Your task to perform on an android device: check storage Image 0: 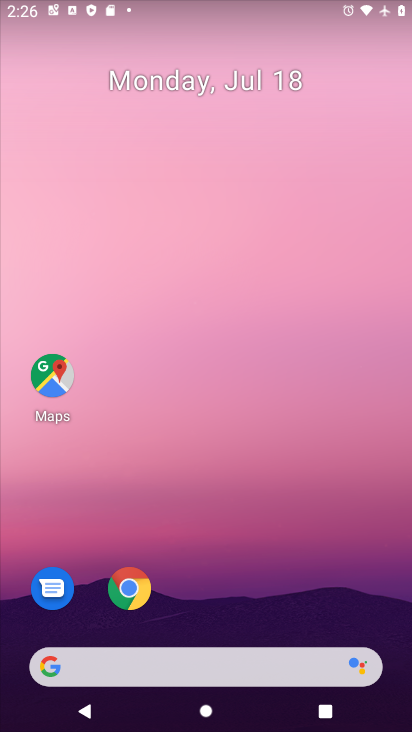
Step 0: drag from (288, 694) to (298, 221)
Your task to perform on an android device: check storage Image 1: 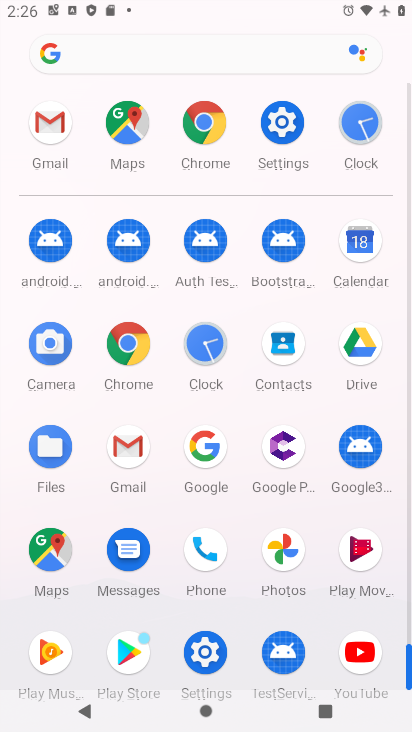
Step 1: click (287, 135)
Your task to perform on an android device: check storage Image 2: 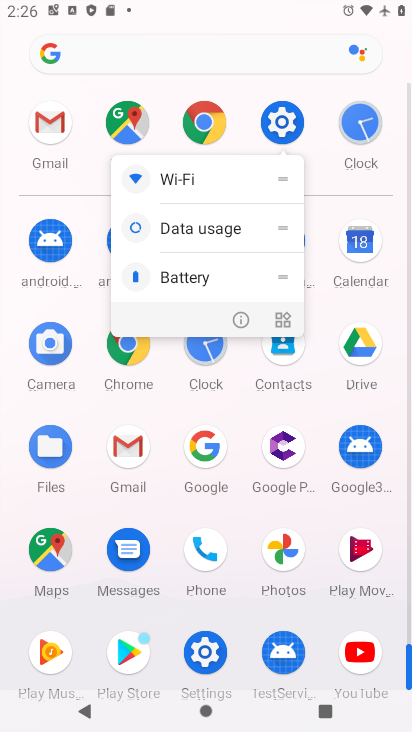
Step 2: click (297, 124)
Your task to perform on an android device: check storage Image 3: 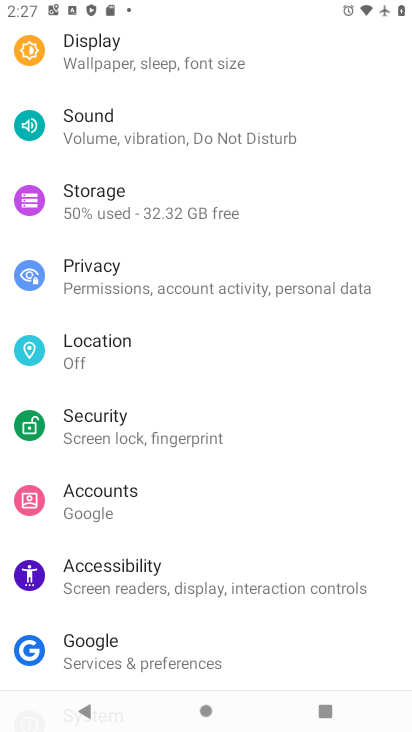
Step 3: drag from (155, 380) to (163, 597)
Your task to perform on an android device: check storage Image 4: 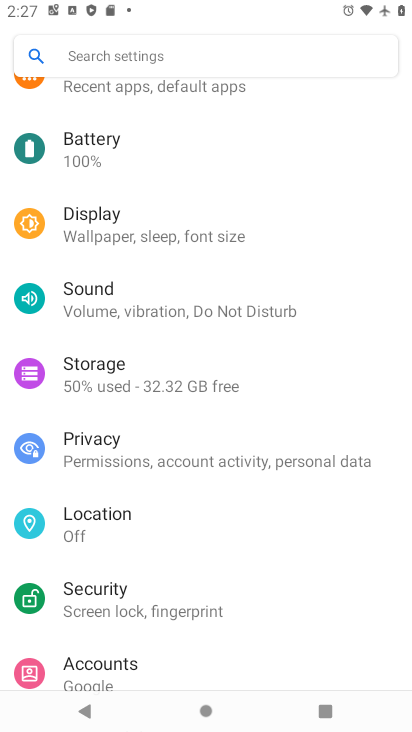
Step 4: click (179, 387)
Your task to perform on an android device: check storage Image 5: 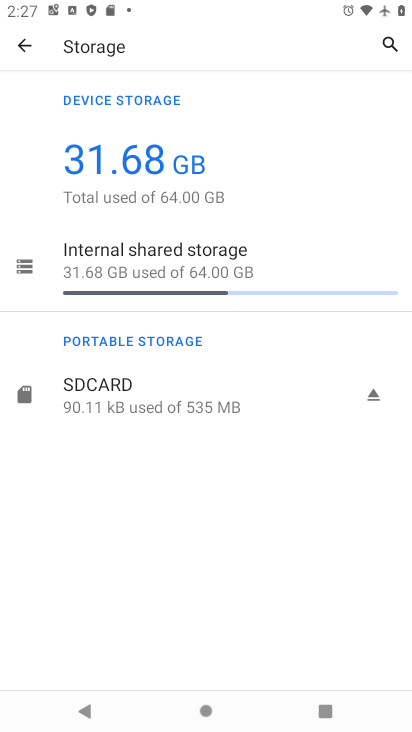
Step 5: click (162, 258)
Your task to perform on an android device: check storage Image 6: 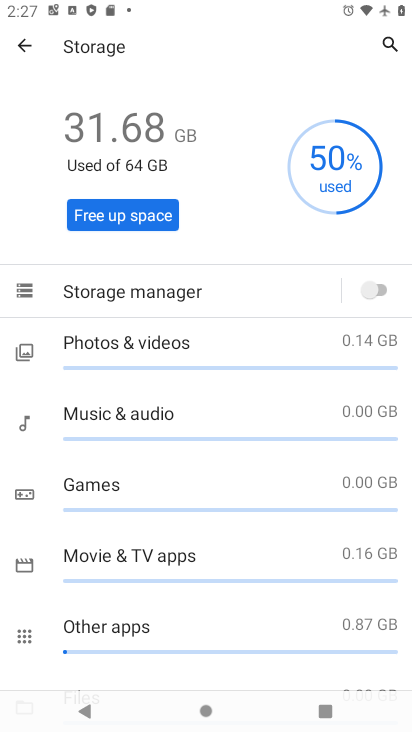
Step 6: task complete